Your task to perform on an android device: delete location history Image 0: 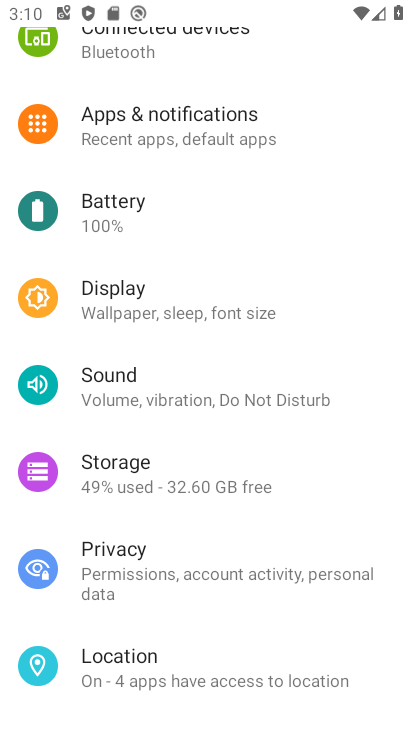
Step 0: click (144, 663)
Your task to perform on an android device: delete location history Image 1: 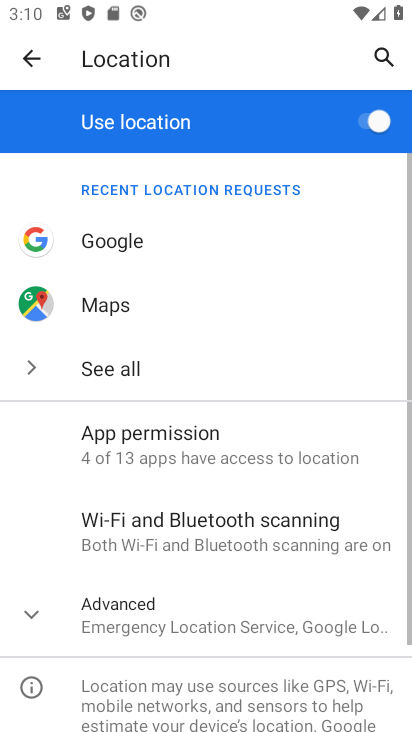
Step 1: click (202, 616)
Your task to perform on an android device: delete location history Image 2: 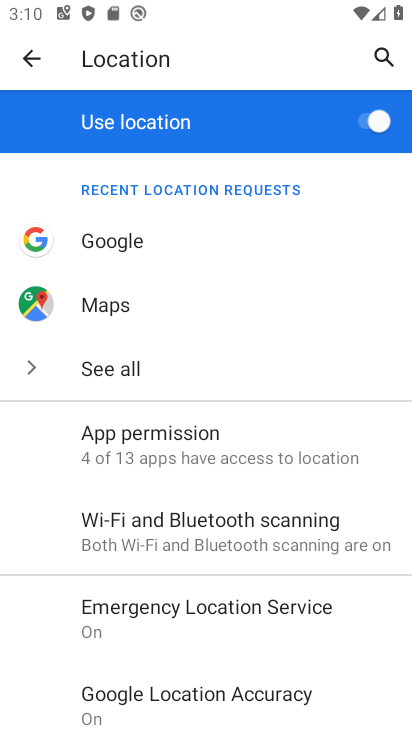
Step 2: drag from (48, 395) to (173, 163)
Your task to perform on an android device: delete location history Image 3: 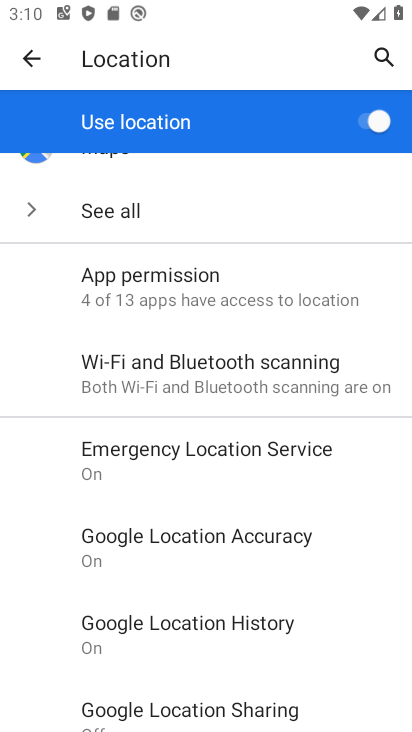
Step 3: click (228, 626)
Your task to perform on an android device: delete location history Image 4: 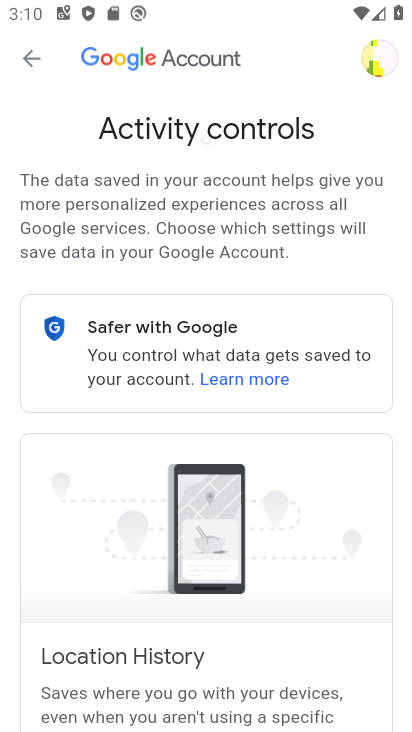
Step 4: drag from (49, 616) to (254, 135)
Your task to perform on an android device: delete location history Image 5: 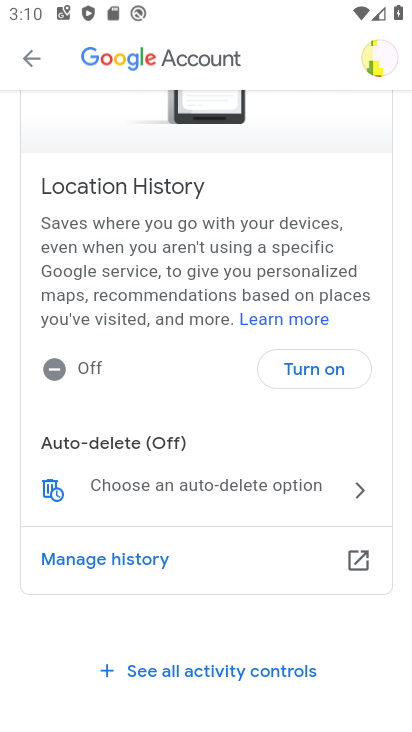
Step 5: click (311, 373)
Your task to perform on an android device: delete location history Image 6: 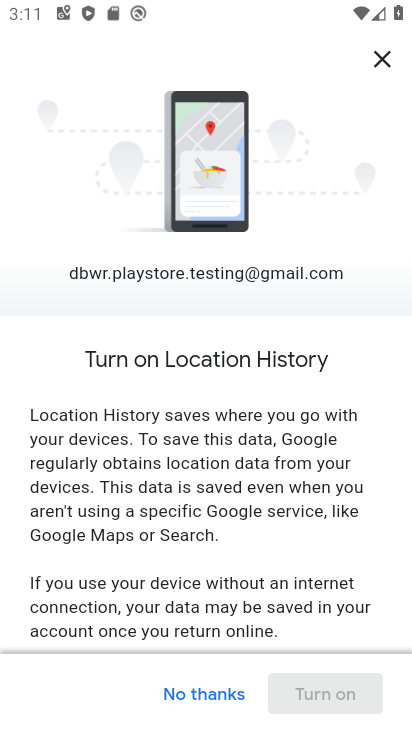
Step 6: drag from (142, 607) to (356, 75)
Your task to perform on an android device: delete location history Image 7: 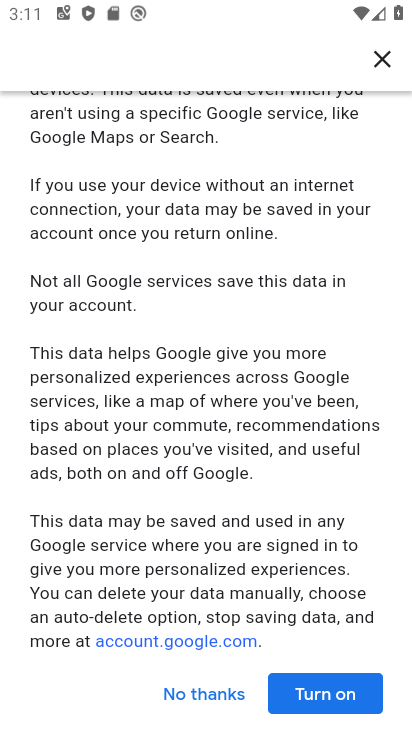
Step 7: drag from (141, 567) to (285, 249)
Your task to perform on an android device: delete location history Image 8: 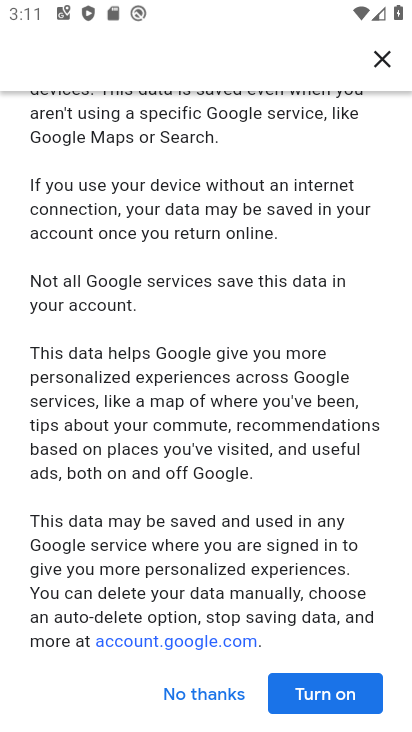
Step 8: click (309, 690)
Your task to perform on an android device: delete location history Image 9: 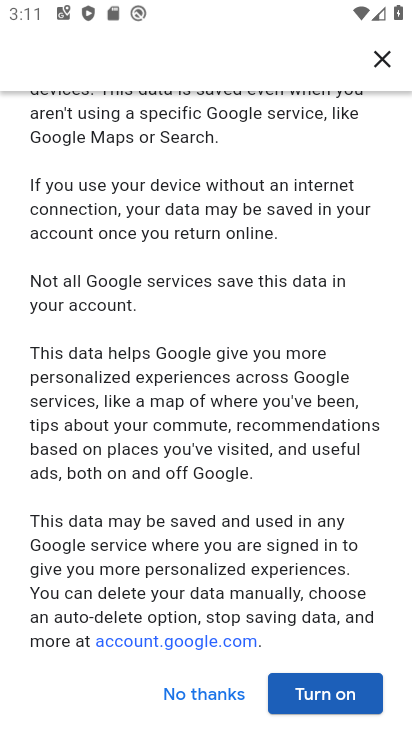
Step 9: click (340, 682)
Your task to perform on an android device: delete location history Image 10: 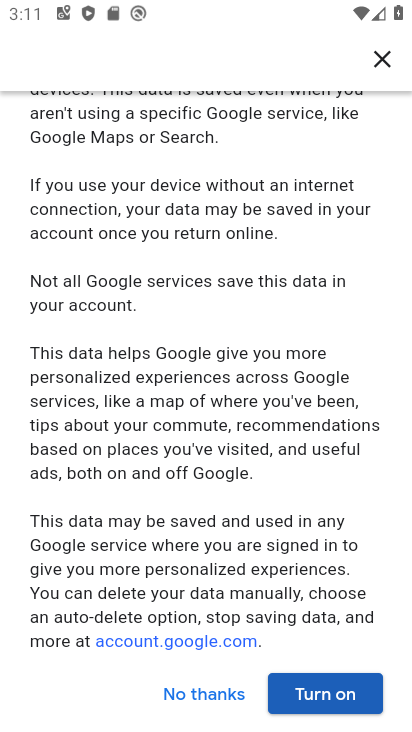
Step 10: click (328, 691)
Your task to perform on an android device: delete location history Image 11: 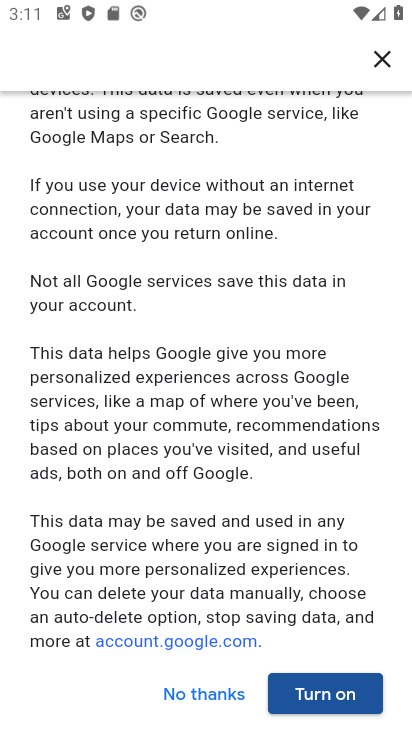
Step 11: task complete